Your task to perform on an android device: check storage Image 0: 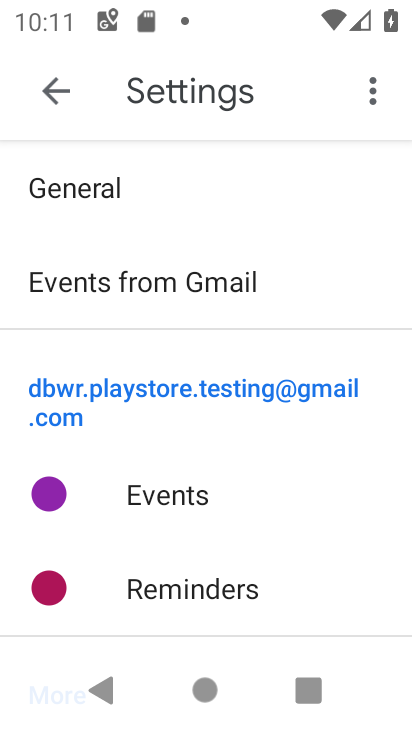
Step 0: press home button
Your task to perform on an android device: check storage Image 1: 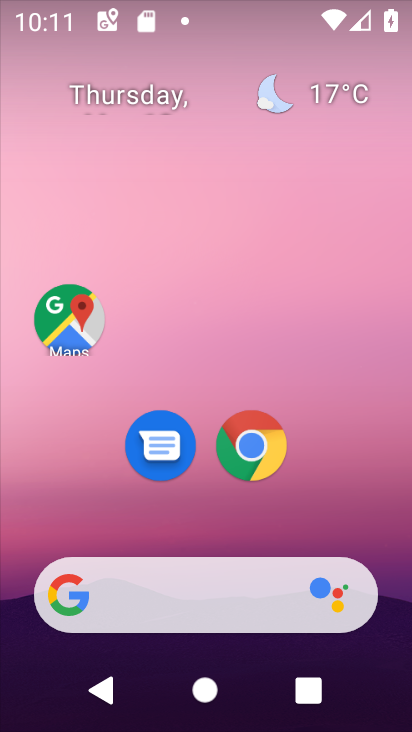
Step 1: drag from (281, 524) to (323, 168)
Your task to perform on an android device: check storage Image 2: 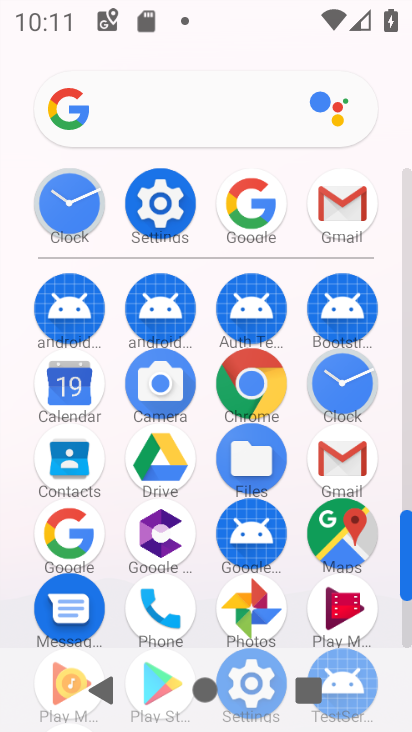
Step 2: click (153, 205)
Your task to perform on an android device: check storage Image 3: 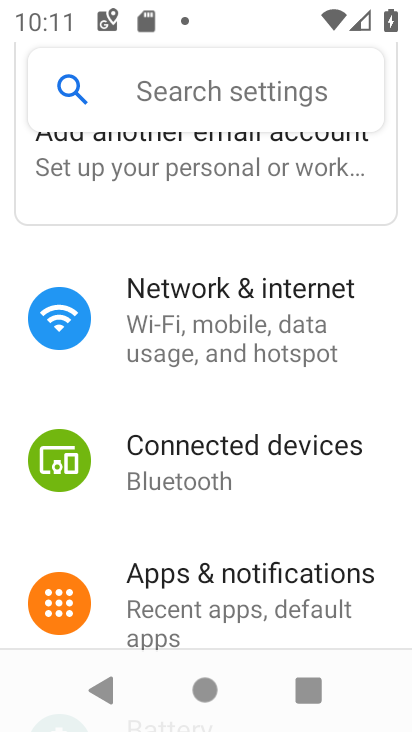
Step 3: drag from (246, 547) to (295, 242)
Your task to perform on an android device: check storage Image 4: 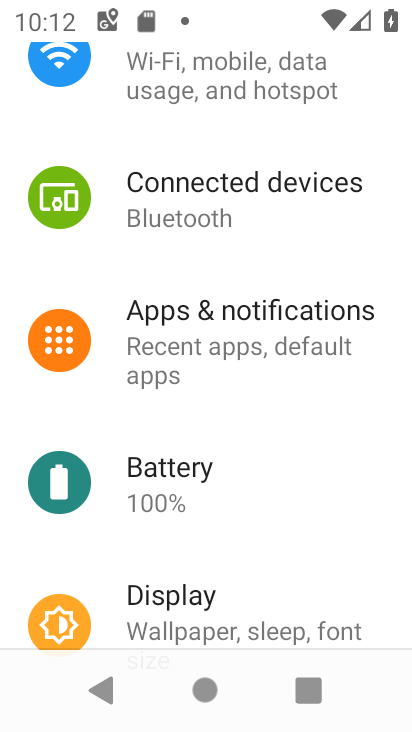
Step 4: drag from (296, 528) to (320, 272)
Your task to perform on an android device: check storage Image 5: 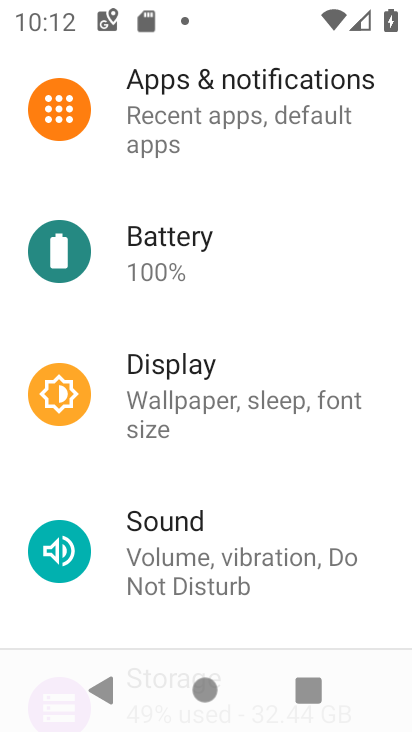
Step 5: drag from (323, 519) to (336, 405)
Your task to perform on an android device: check storage Image 6: 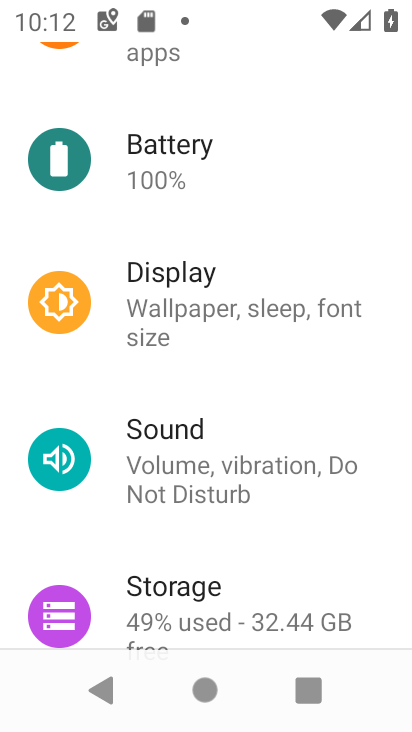
Step 6: click (209, 621)
Your task to perform on an android device: check storage Image 7: 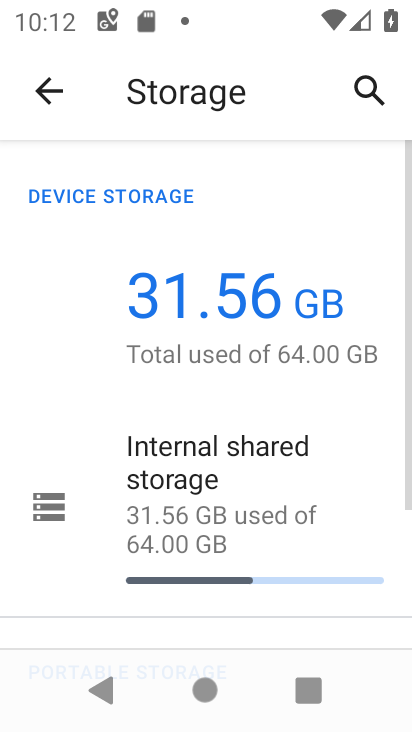
Step 7: click (270, 467)
Your task to perform on an android device: check storage Image 8: 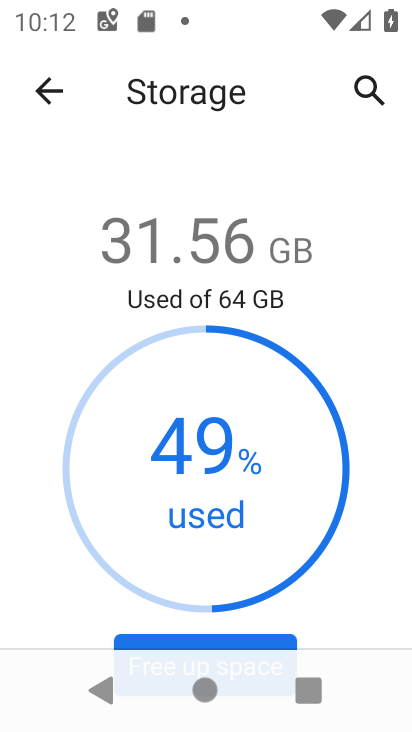
Step 8: task complete